Your task to perform on an android device: toggle location history Image 0: 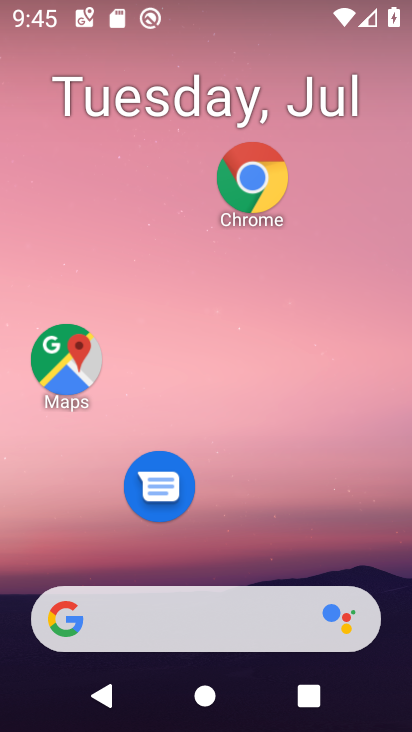
Step 0: drag from (259, 583) to (259, 108)
Your task to perform on an android device: toggle location history Image 1: 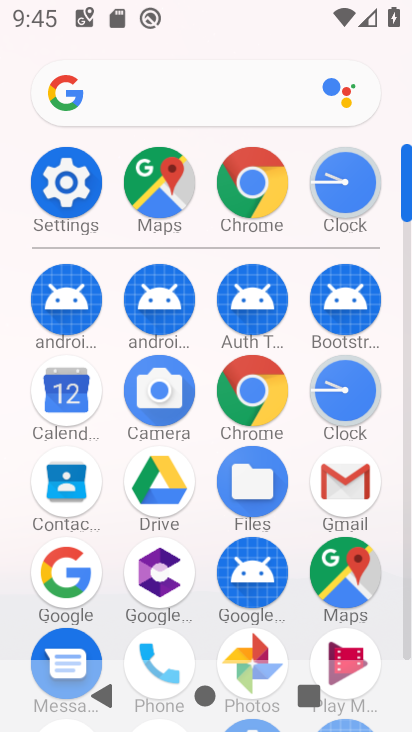
Step 1: click (66, 207)
Your task to perform on an android device: toggle location history Image 2: 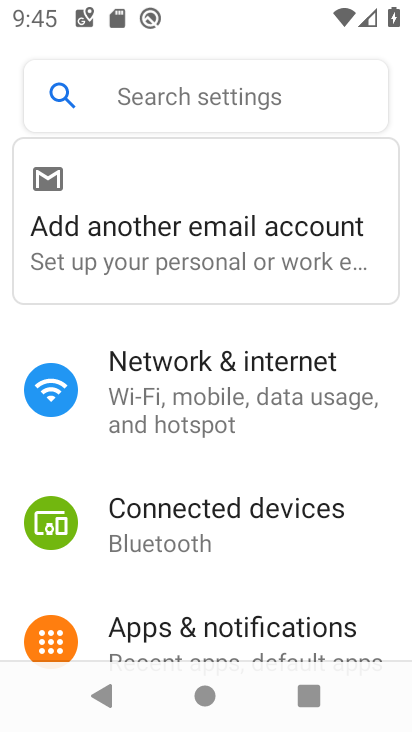
Step 2: drag from (253, 555) to (237, 244)
Your task to perform on an android device: toggle location history Image 3: 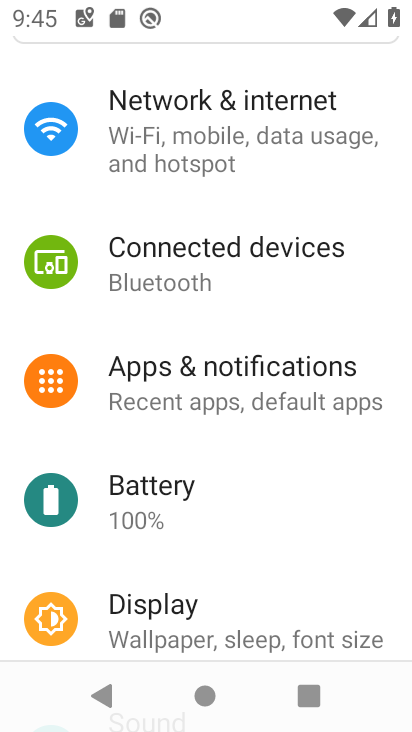
Step 3: drag from (242, 556) to (235, 155)
Your task to perform on an android device: toggle location history Image 4: 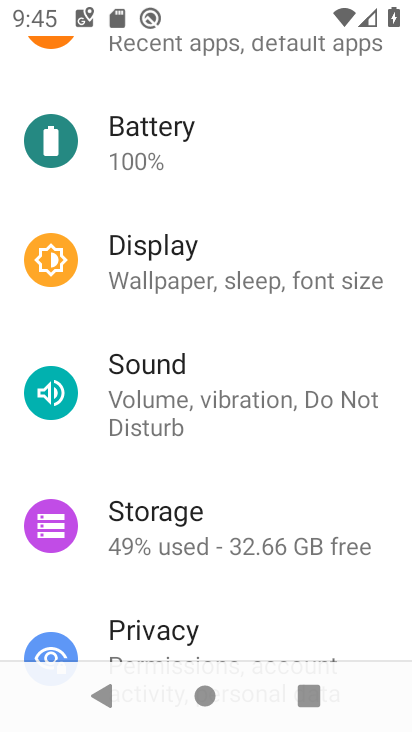
Step 4: drag from (214, 597) to (229, 249)
Your task to perform on an android device: toggle location history Image 5: 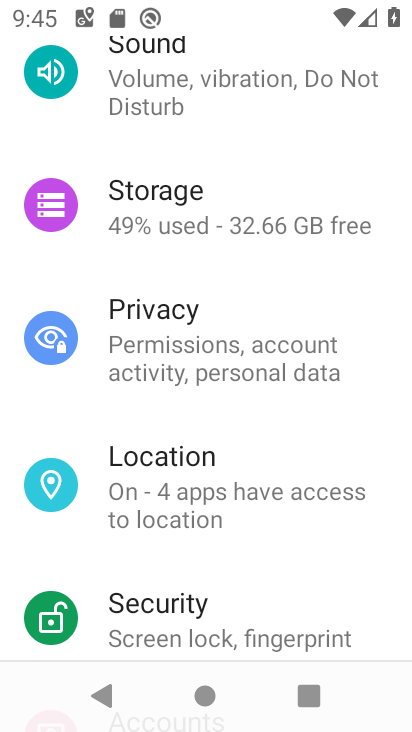
Step 5: click (240, 495)
Your task to perform on an android device: toggle location history Image 6: 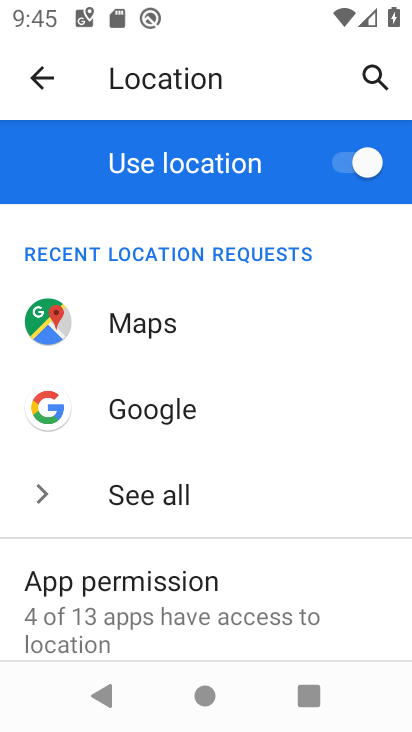
Step 6: drag from (232, 489) to (274, 194)
Your task to perform on an android device: toggle location history Image 7: 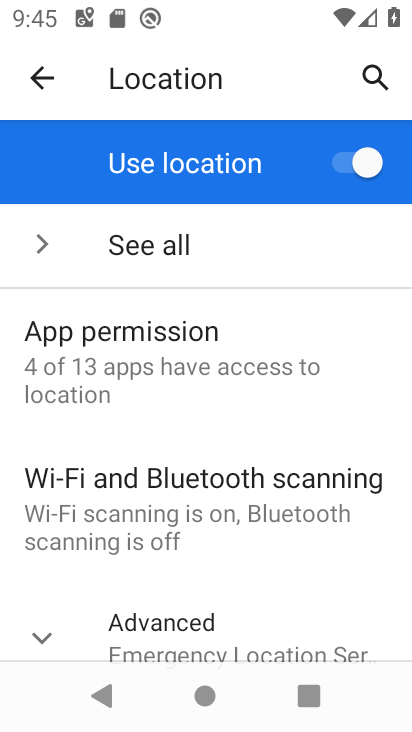
Step 7: click (200, 641)
Your task to perform on an android device: toggle location history Image 8: 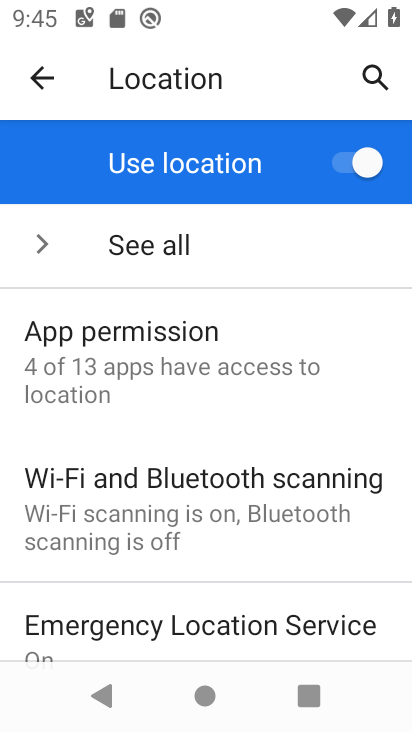
Step 8: drag from (214, 526) to (255, 261)
Your task to perform on an android device: toggle location history Image 9: 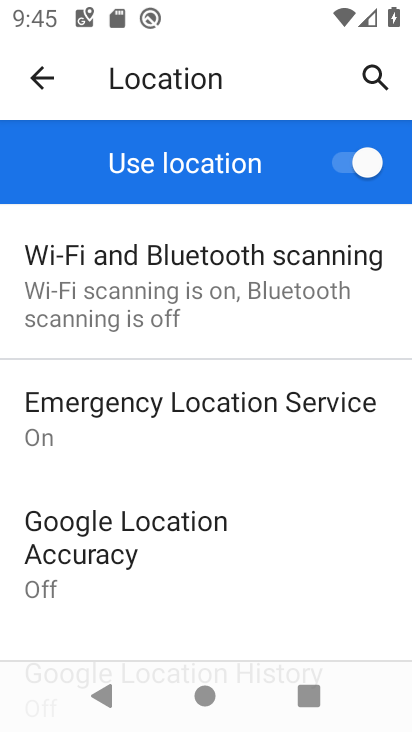
Step 9: drag from (225, 580) to (256, 229)
Your task to perform on an android device: toggle location history Image 10: 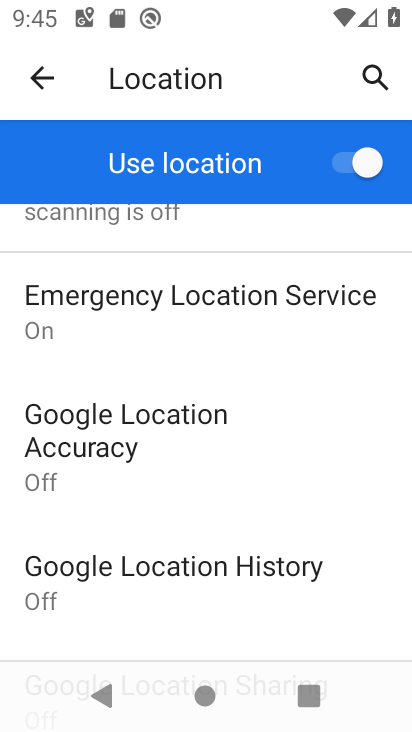
Step 10: click (250, 571)
Your task to perform on an android device: toggle location history Image 11: 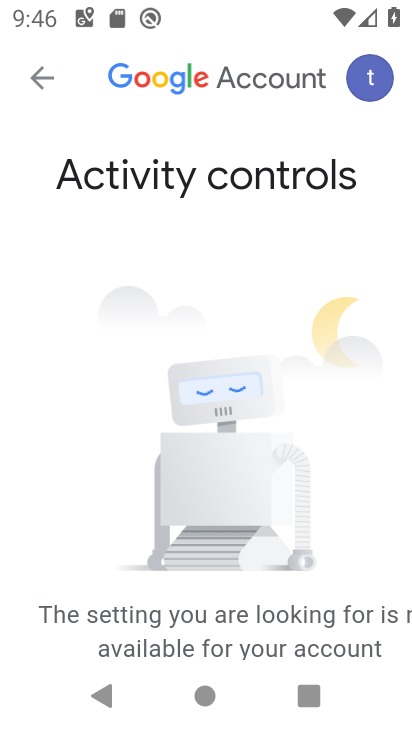
Step 11: click (50, 87)
Your task to perform on an android device: toggle location history Image 12: 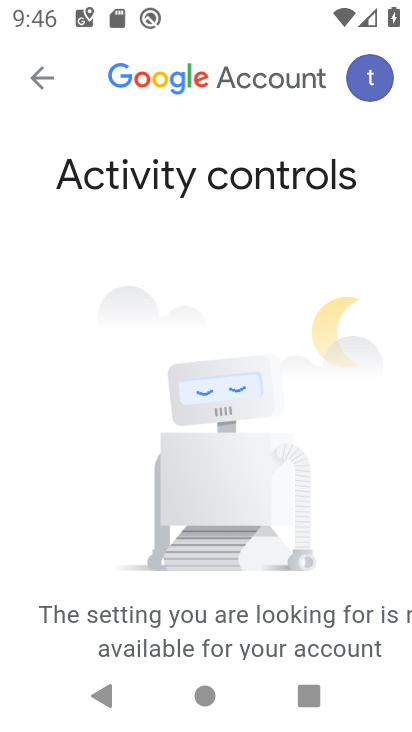
Step 12: task complete